Your task to perform on an android device: Open privacy settings Image 0: 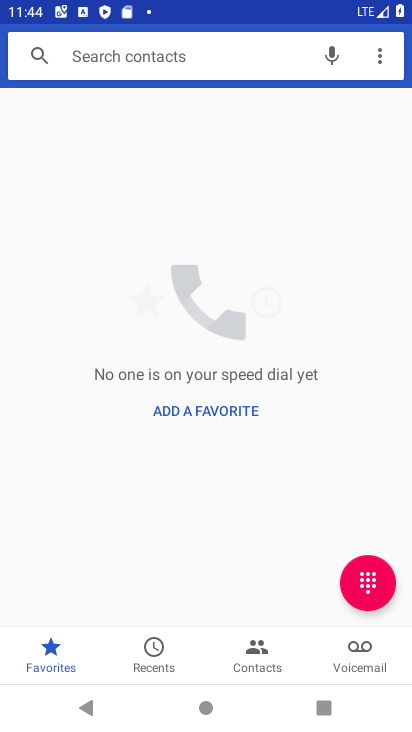
Step 0: press home button
Your task to perform on an android device: Open privacy settings Image 1: 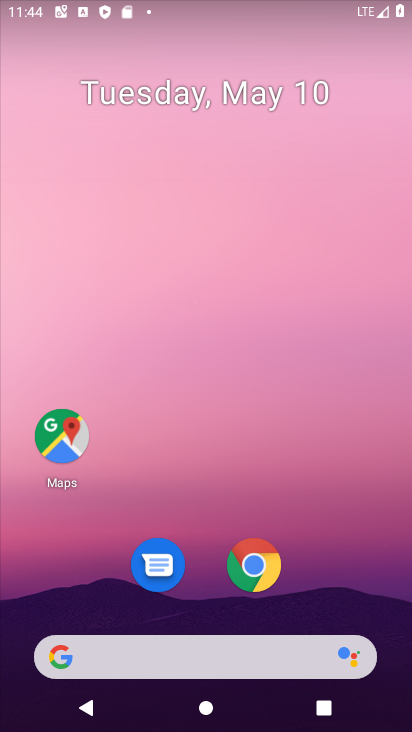
Step 1: drag from (45, 556) to (238, 119)
Your task to perform on an android device: Open privacy settings Image 2: 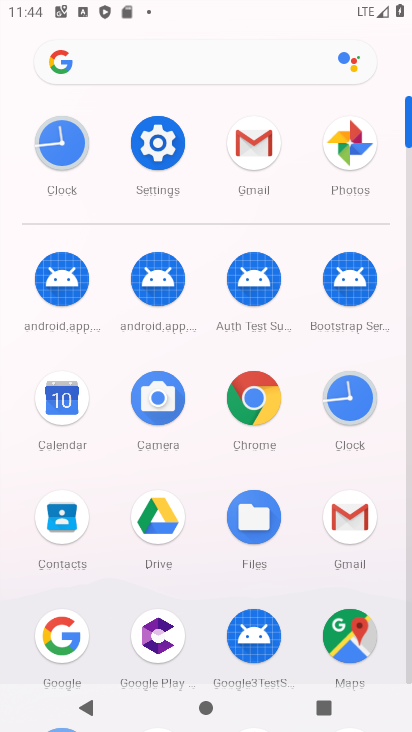
Step 2: click (164, 144)
Your task to perform on an android device: Open privacy settings Image 3: 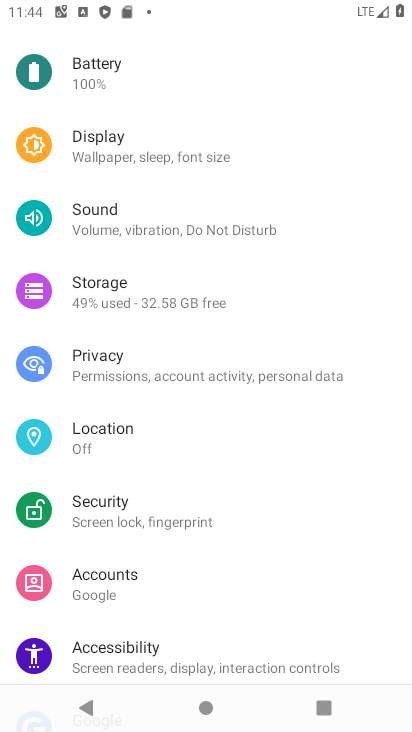
Step 3: click (149, 363)
Your task to perform on an android device: Open privacy settings Image 4: 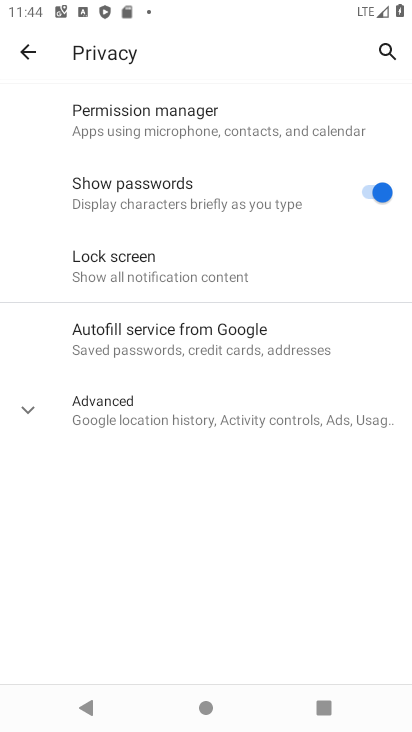
Step 4: task complete